Your task to perform on an android device: turn on airplane mode Image 0: 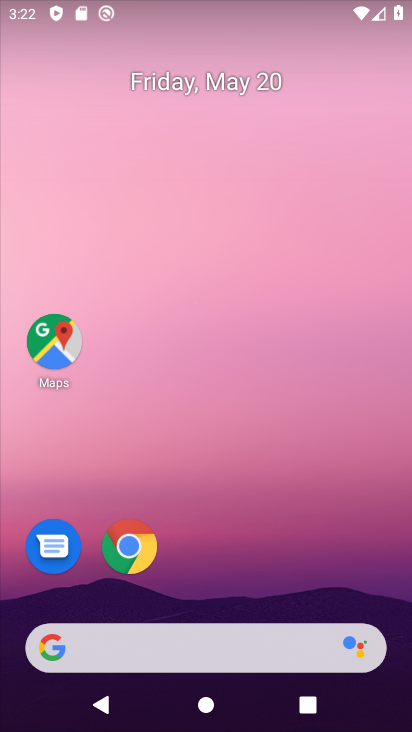
Step 0: drag from (293, 577) to (292, 105)
Your task to perform on an android device: turn on airplane mode Image 1: 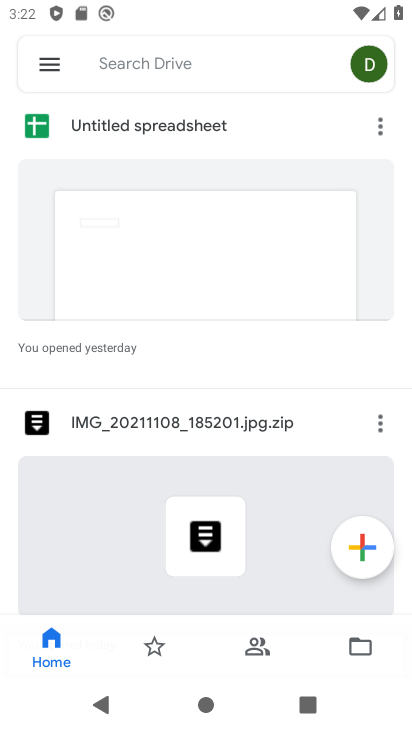
Step 1: press home button
Your task to perform on an android device: turn on airplane mode Image 2: 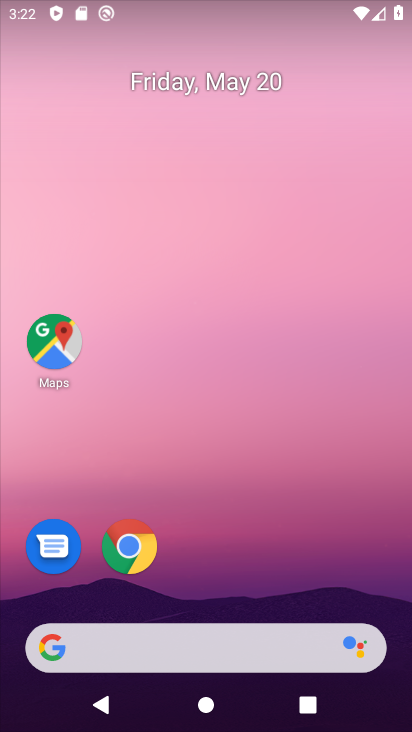
Step 2: drag from (309, 2) to (335, 389)
Your task to perform on an android device: turn on airplane mode Image 3: 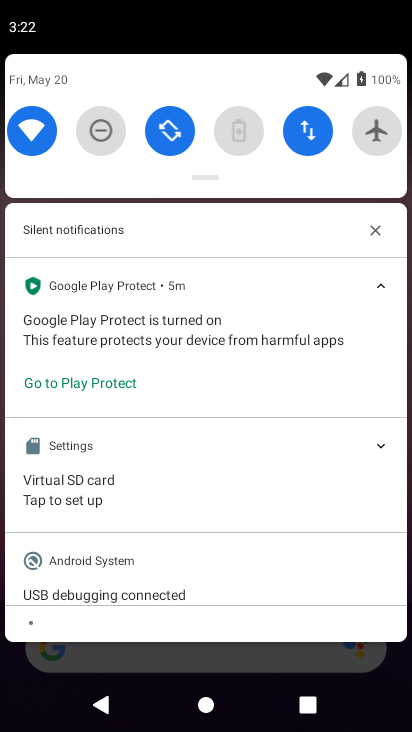
Step 3: click (379, 136)
Your task to perform on an android device: turn on airplane mode Image 4: 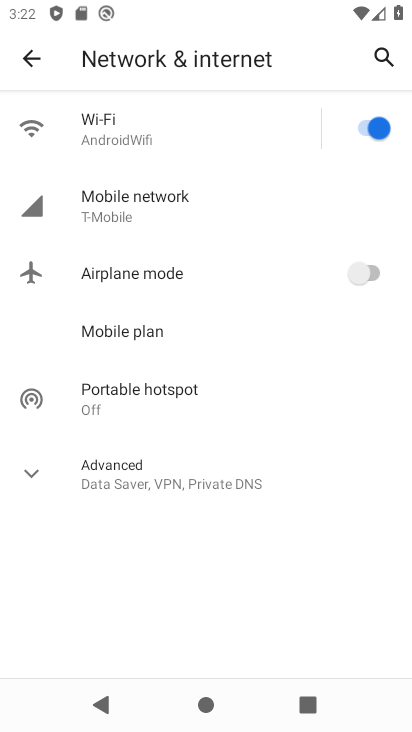
Step 4: click (362, 271)
Your task to perform on an android device: turn on airplane mode Image 5: 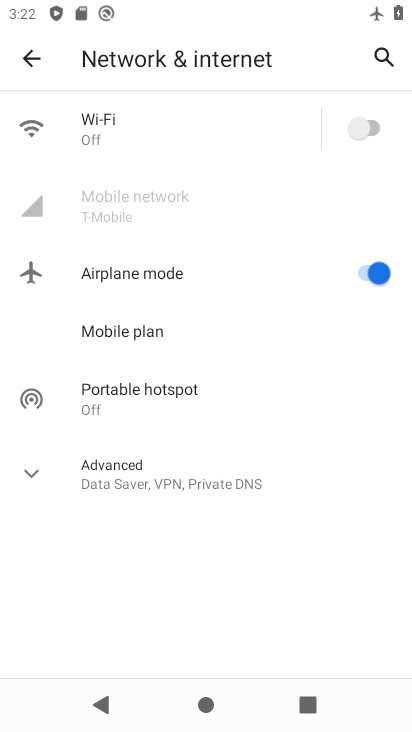
Step 5: task complete